Your task to perform on an android device: Show me popular games on the Play Store Image 0: 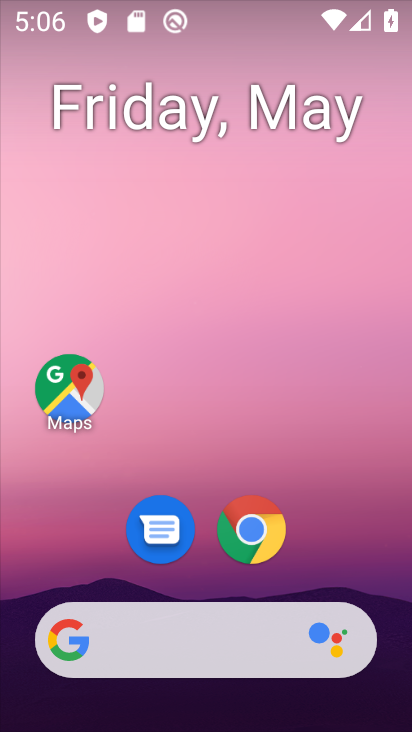
Step 0: drag from (207, 565) to (226, 228)
Your task to perform on an android device: Show me popular games on the Play Store Image 1: 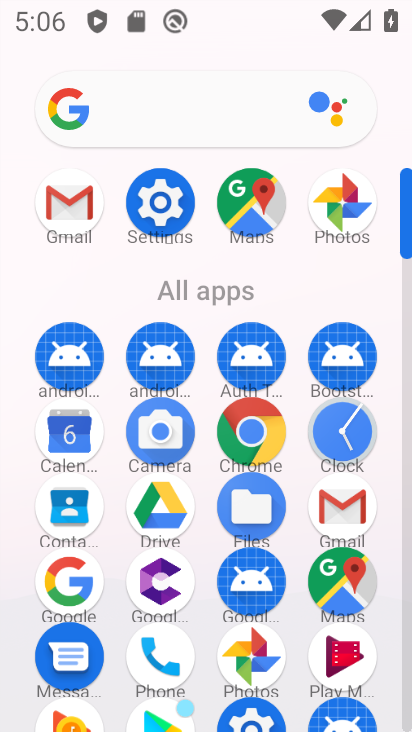
Step 1: drag from (203, 626) to (294, 31)
Your task to perform on an android device: Show me popular games on the Play Store Image 2: 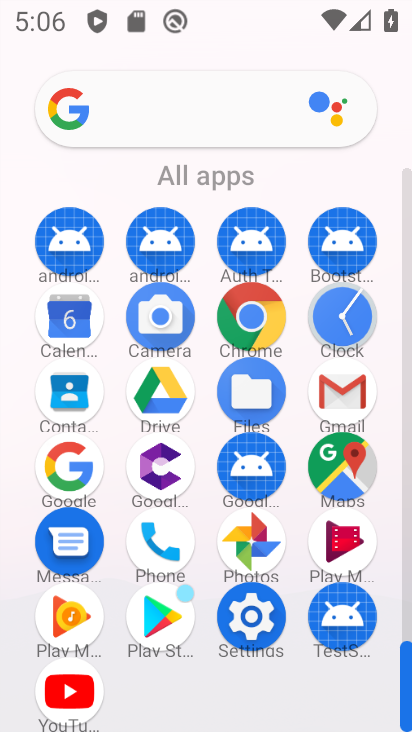
Step 2: click (153, 591)
Your task to perform on an android device: Show me popular games on the Play Store Image 3: 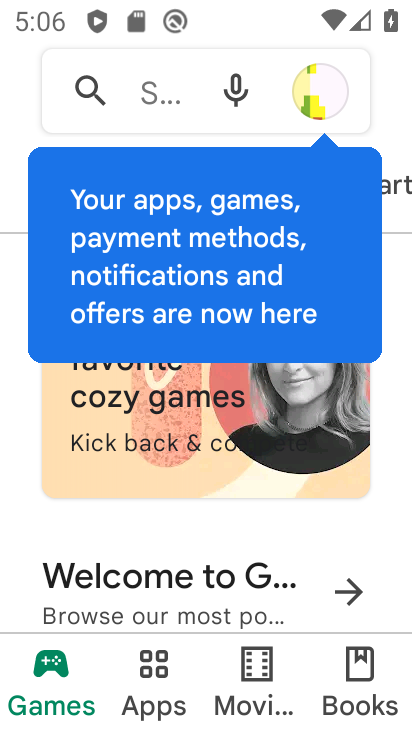
Step 3: click (375, 135)
Your task to perform on an android device: Show me popular games on the Play Store Image 4: 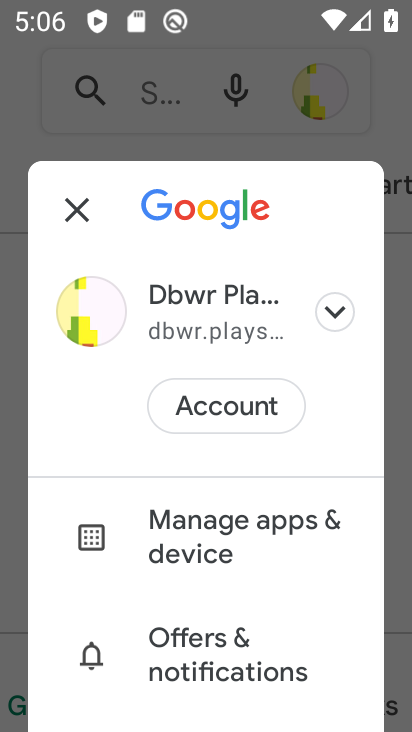
Step 4: click (81, 212)
Your task to perform on an android device: Show me popular games on the Play Store Image 5: 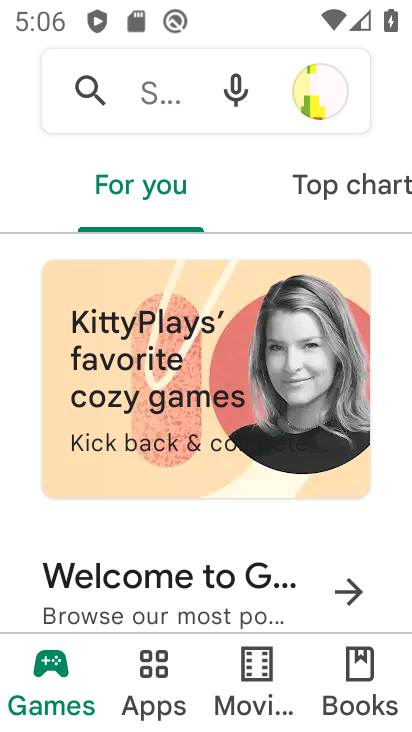
Step 5: click (367, 191)
Your task to perform on an android device: Show me popular games on the Play Store Image 6: 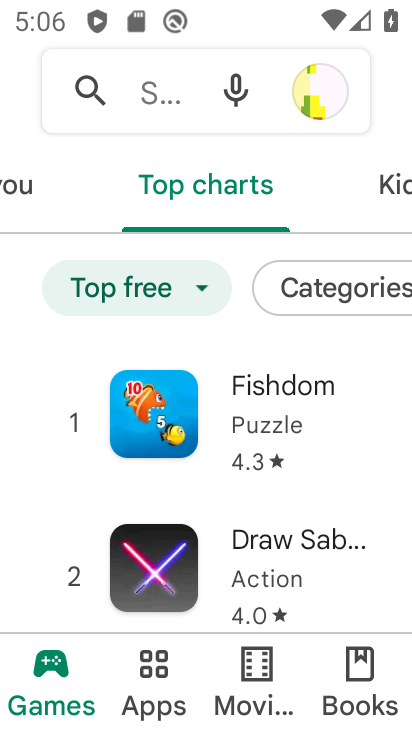
Step 6: task complete